Your task to perform on an android device: turn on notifications settings in the gmail app Image 0: 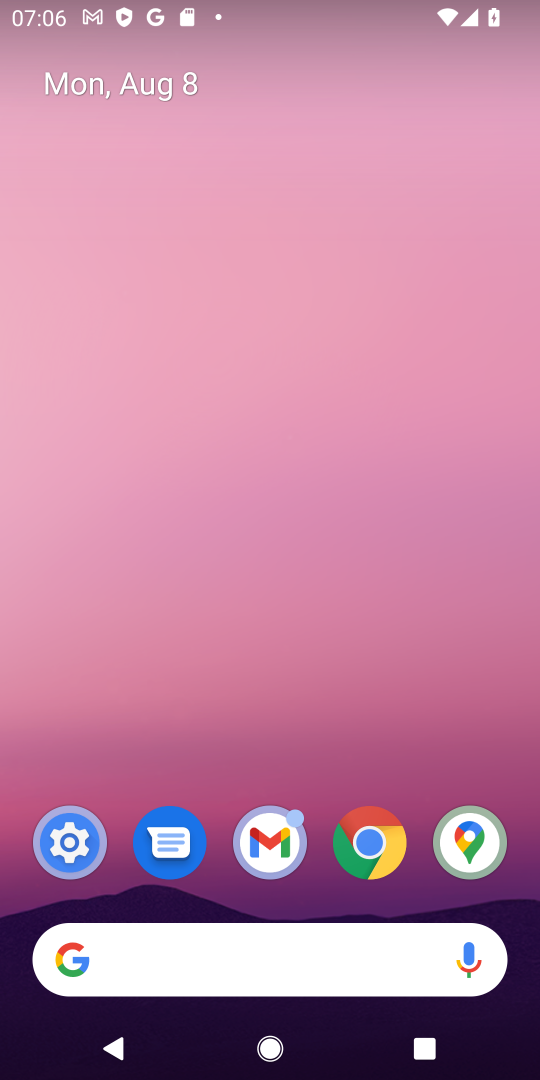
Step 0: click (288, 807)
Your task to perform on an android device: turn on notifications settings in the gmail app Image 1: 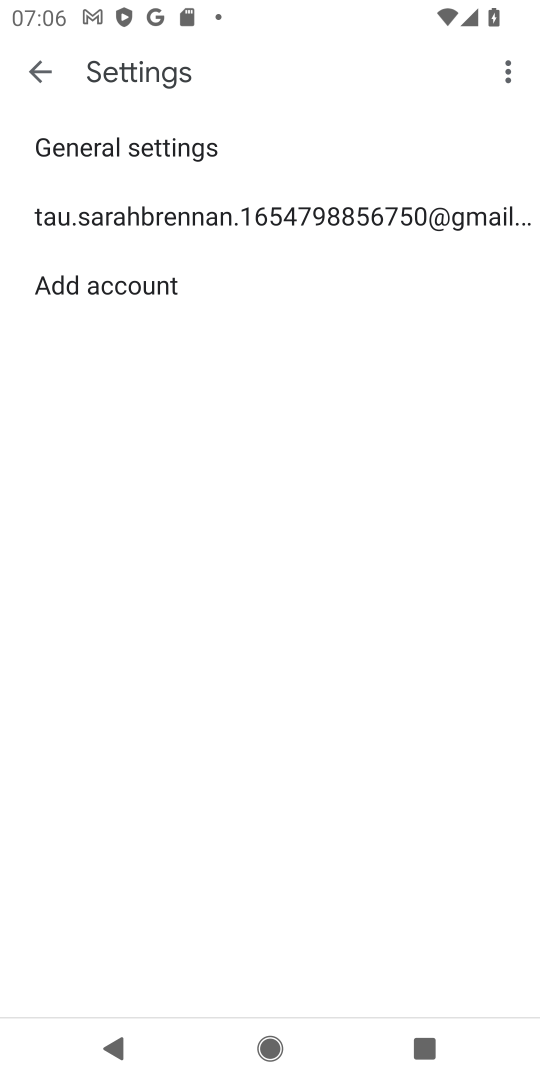
Step 1: press home button
Your task to perform on an android device: turn on notifications settings in the gmail app Image 2: 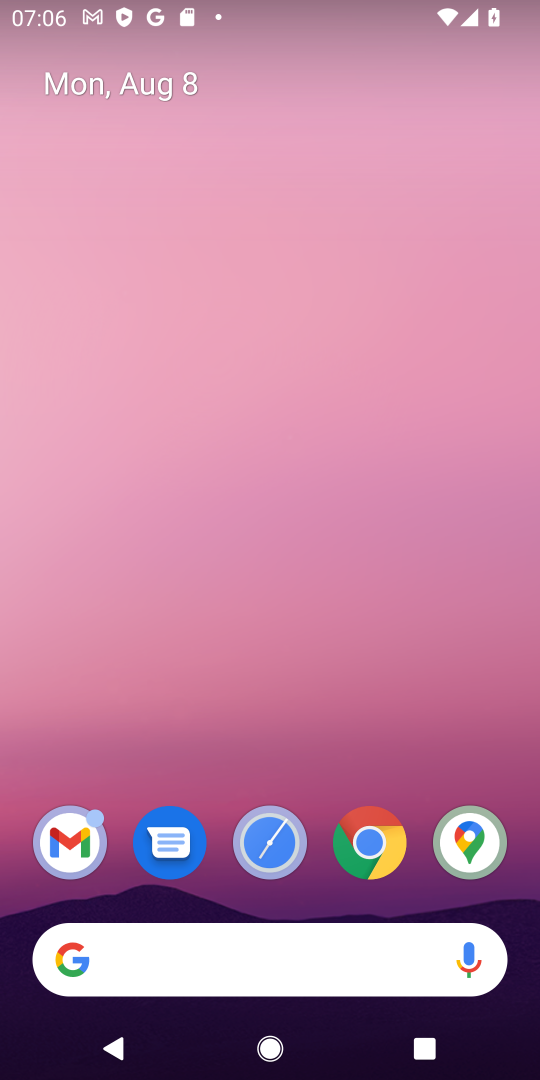
Step 2: click (91, 836)
Your task to perform on an android device: turn on notifications settings in the gmail app Image 3: 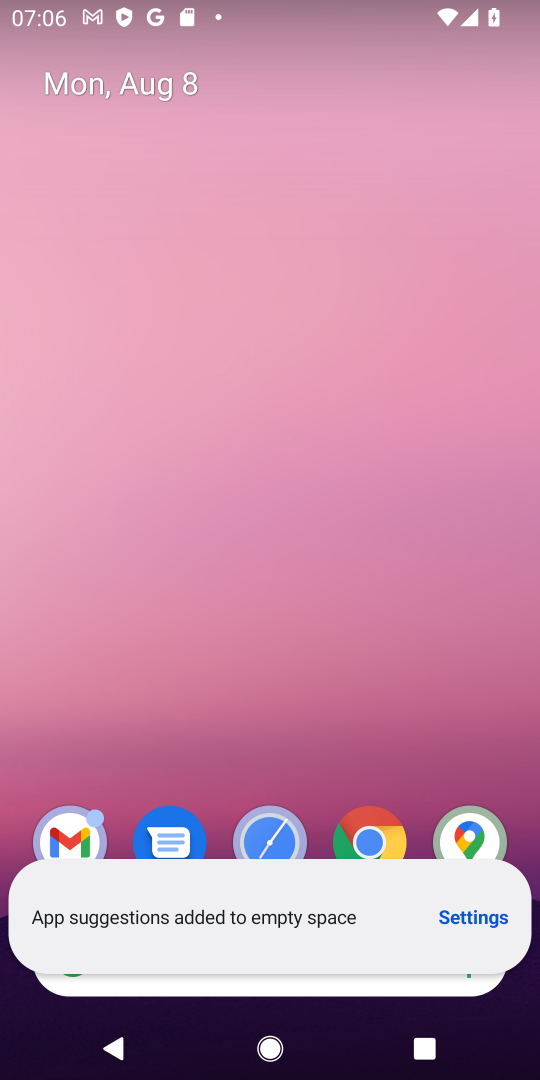
Step 3: click (251, 752)
Your task to perform on an android device: turn on notifications settings in the gmail app Image 4: 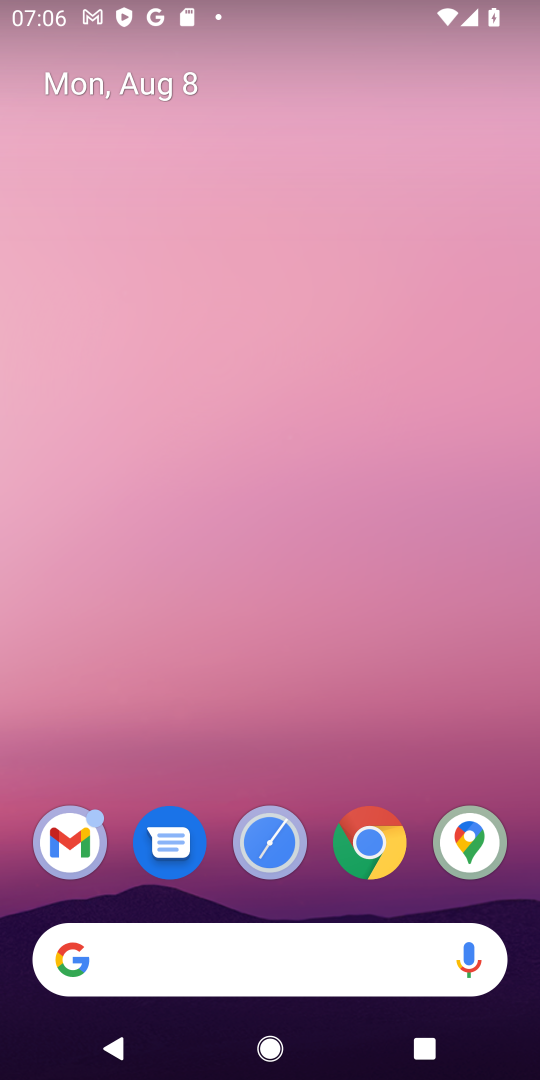
Step 4: click (83, 843)
Your task to perform on an android device: turn on notifications settings in the gmail app Image 5: 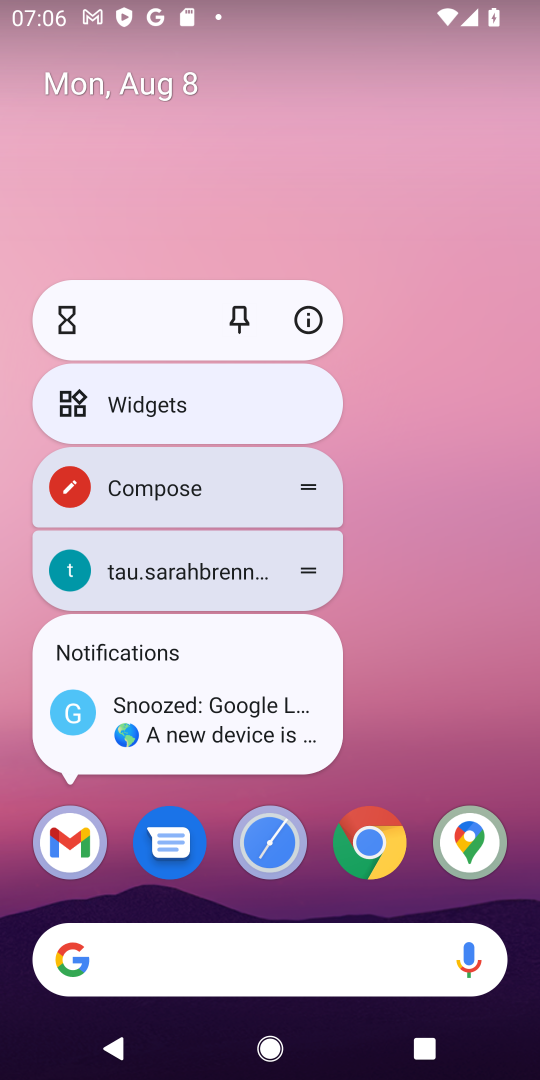
Step 5: click (305, 311)
Your task to perform on an android device: turn on notifications settings in the gmail app Image 6: 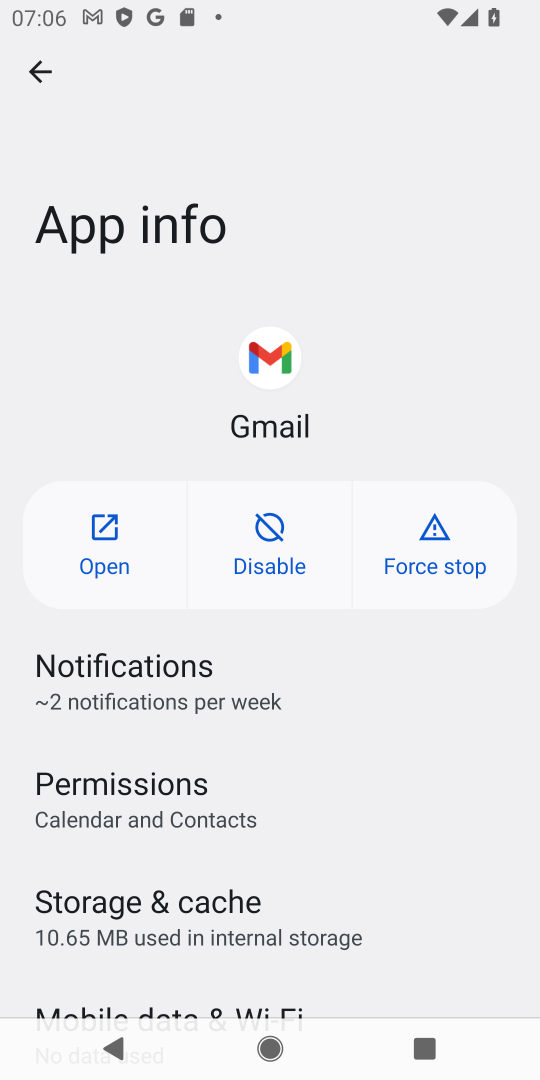
Step 6: click (276, 692)
Your task to perform on an android device: turn on notifications settings in the gmail app Image 7: 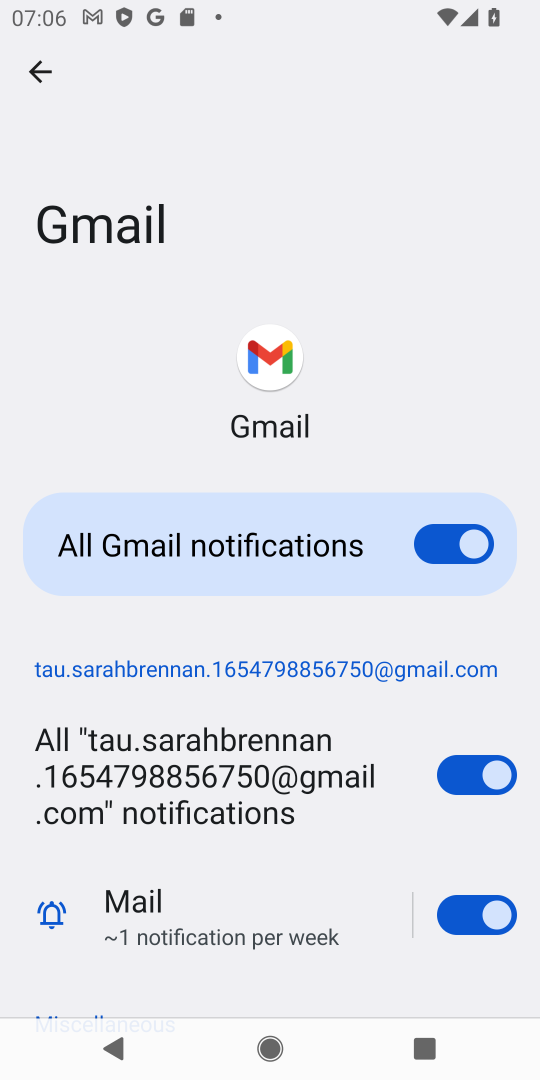
Step 7: task complete